Your task to perform on an android device: Do I have any events tomorrow? Image 0: 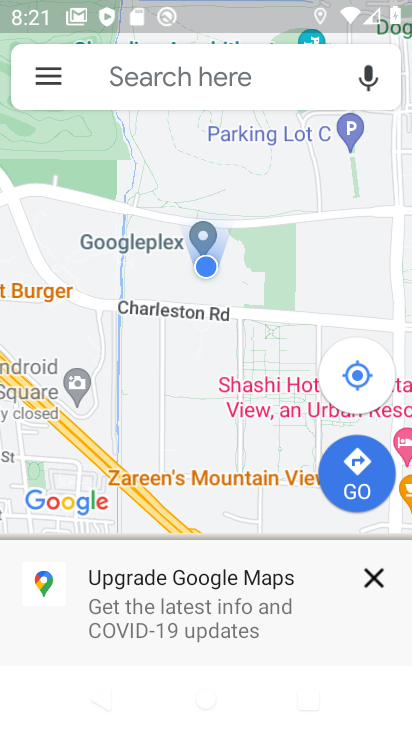
Step 0: press home button
Your task to perform on an android device: Do I have any events tomorrow? Image 1: 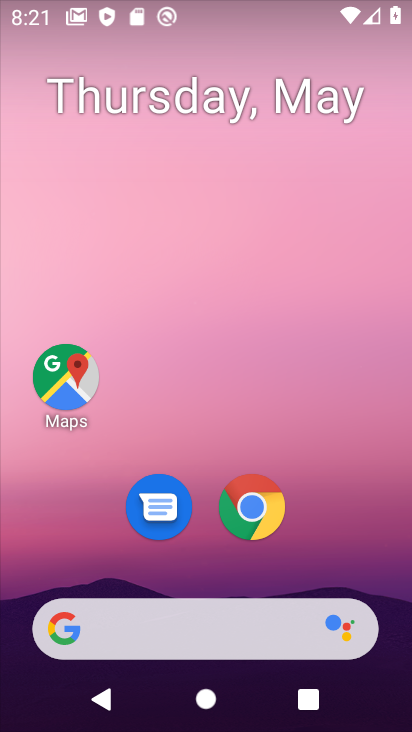
Step 1: drag from (290, 648) to (291, 87)
Your task to perform on an android device: Do I have any events tomorrow? Image 2: 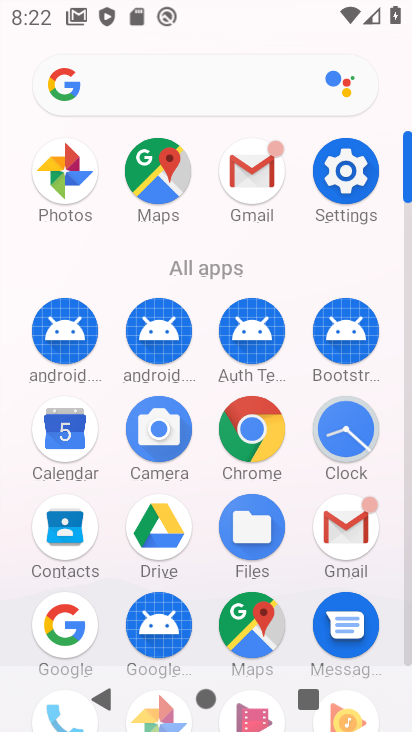
Step 2: click (66, 437)
Your task to perform on an android device: Do I have any events tomorrow? Image 3: 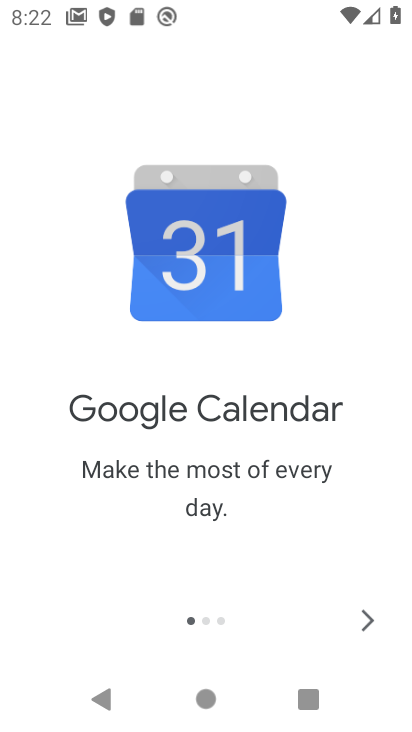
Step 3: click (352, 628)
Your task to perform on an android device: Do I have any events tomorrow? Image 4: 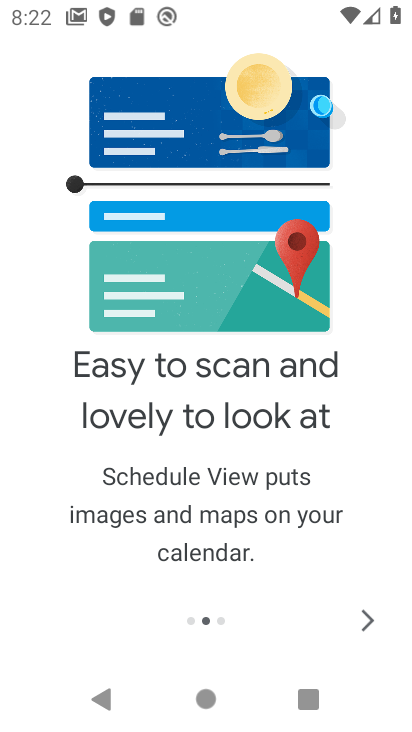
Step 4: click (352, 628)
Your task to perform on an android device: Do I have any events tomorrow? Image 5: 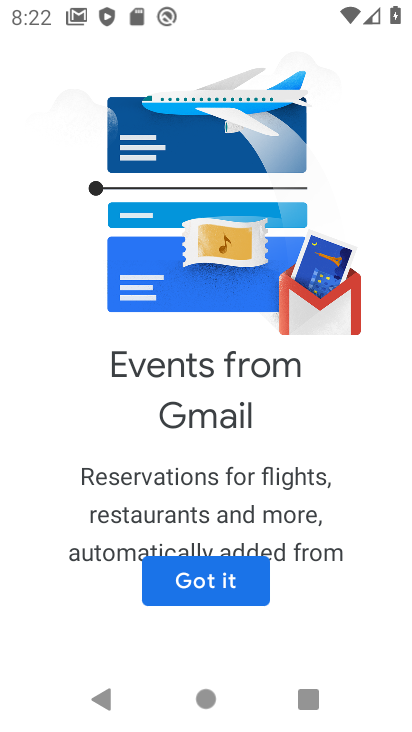
Step 5: click (352, 628)
Your task to perform on an android device: Do I have any events tomorrow? Image 6: 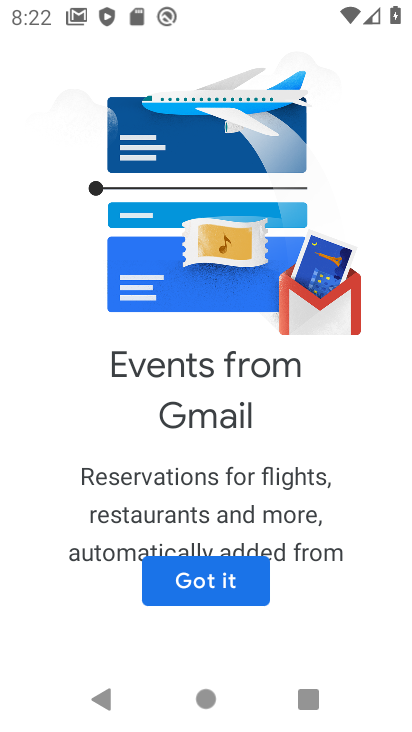
Step 6: click (246, 601)
Your task to perform on an android device: Do I have any events tomorrow? Image 7: 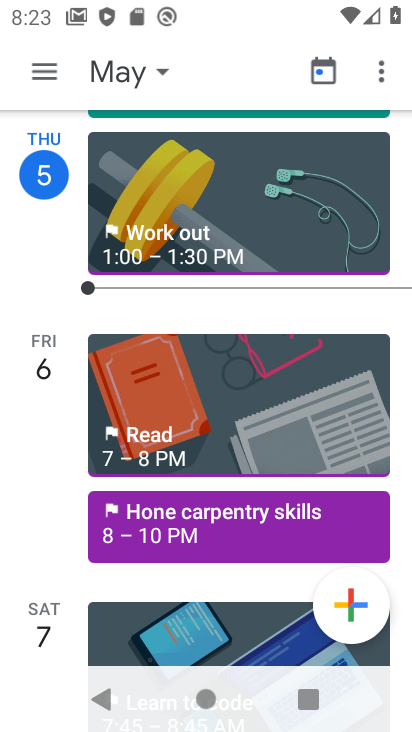
Step 7: click (139, 82)
Your task to perform on an android device: Do I have any events tomorrow? Image 8: 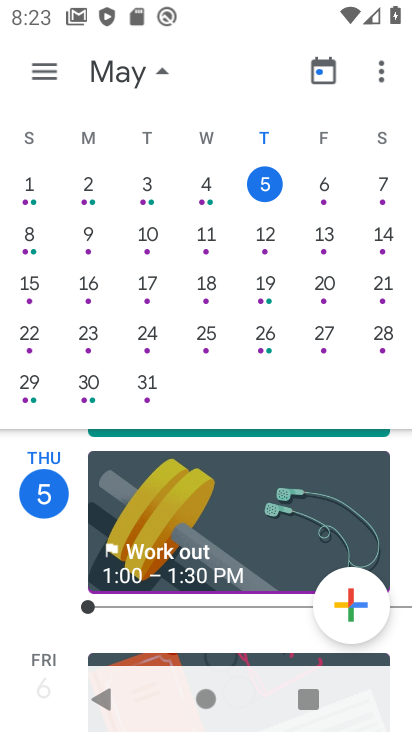
Step 8: task complete